Your task to perform on an android device: star an email in the gmail app Image 0: 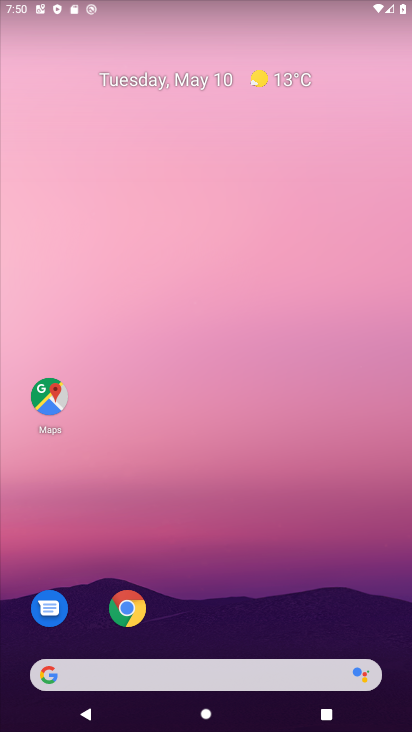
Step 0: drag from (286, 548) to (258, 124)
Your task to perform on an android device: star an email in the gmail app Image 1: 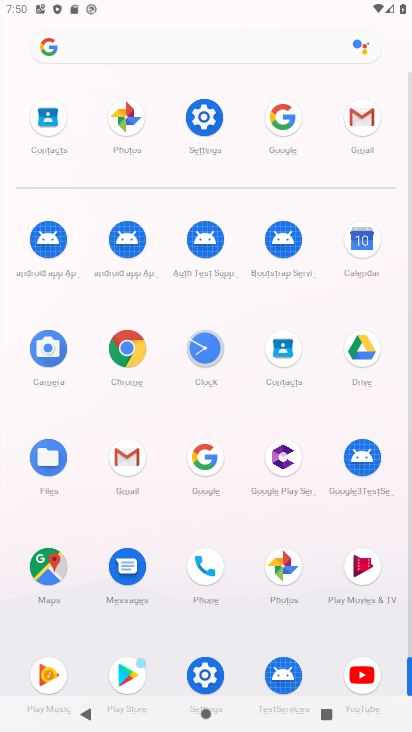
Step 1: click (366, 129)
Your task to perform on an android device: star an email in the gmail app Image 2: 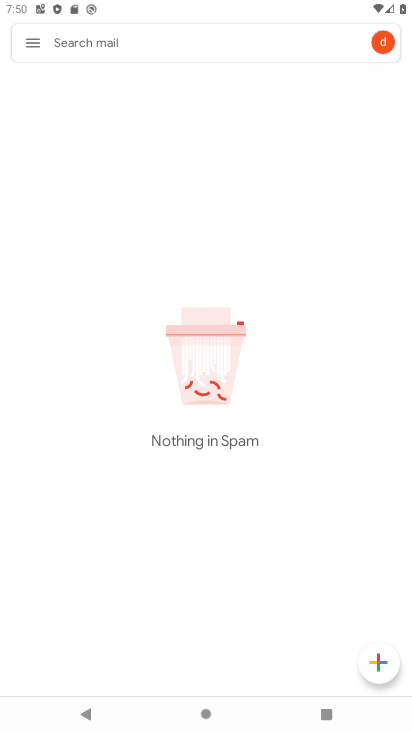
Step 2: click (30, 45)
Your task to perform on an android device: star an email in the gmail app Image 3: 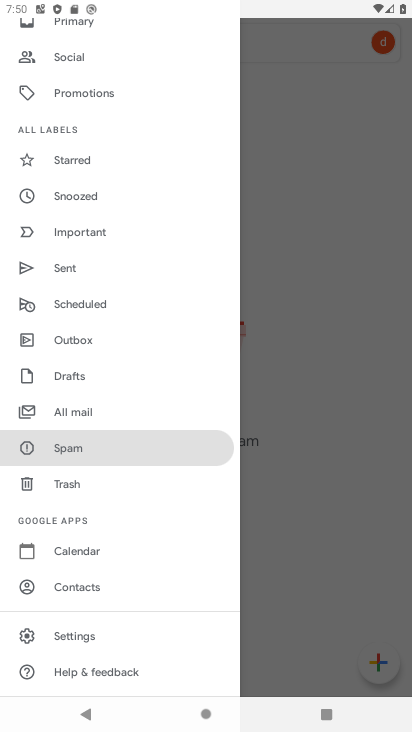
Step 3: click (82, 405)
Your task to perform on an android device: star an email in the gmail app Image 4: 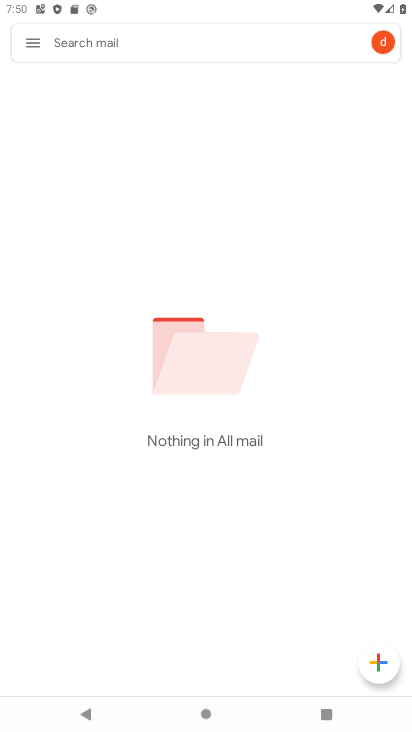
Step 4: task complete